Your task to perform on an android device: set default search engine in the chrome app Image 0: 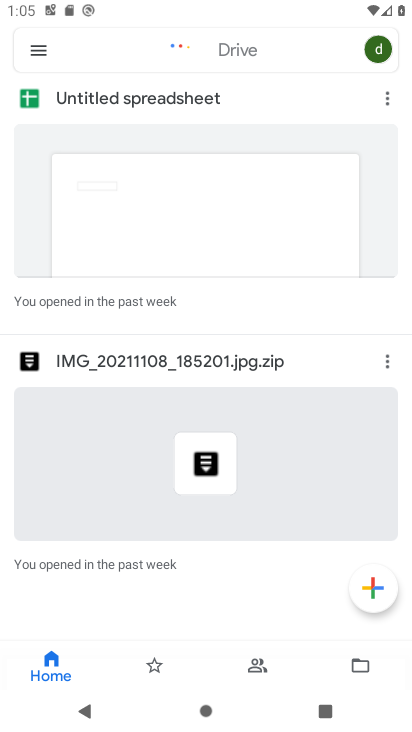
Step 0: press home button
Your task to perform on an android device: set default search engine in the chrome app Image 1: 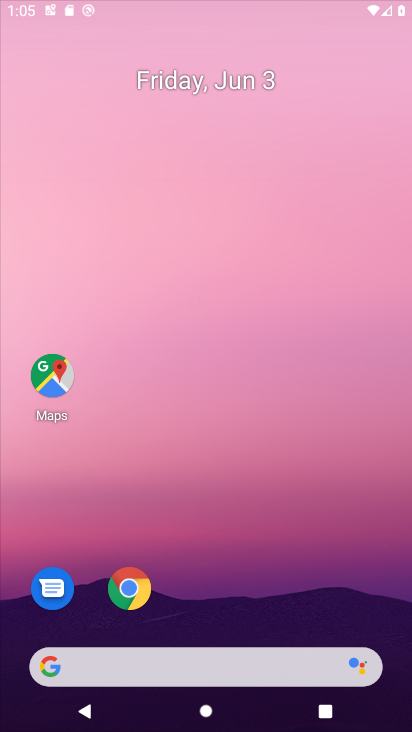
Step 1: drag from (212, 516) to (212, 470)
Your task to perform on an android device: set default search engine in the chrome app Image 2: 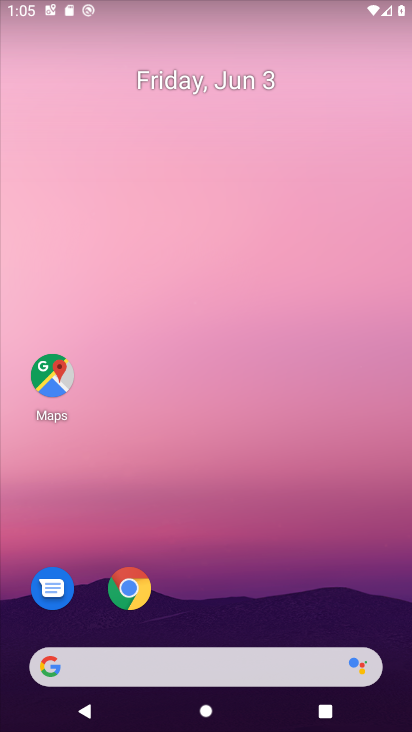
Step 2: drag from (308, 168) to (321, 130)
Your task to perform on an android device: set default search engine in the chrome app Image 3: 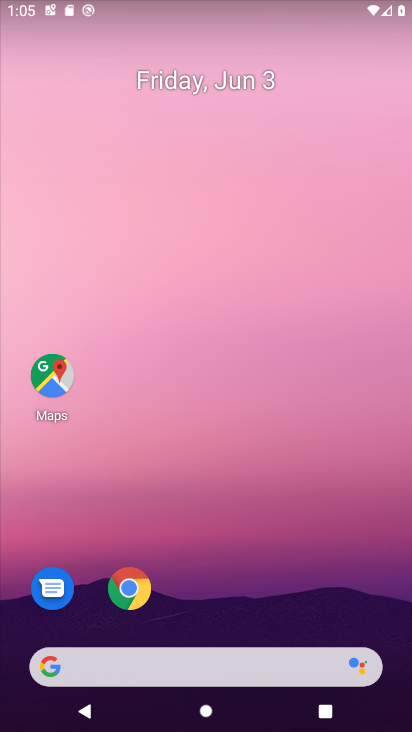
Step 3: click (139, 581)
Your task to perform on an android device: set default search engine in the chrome app Image 4: 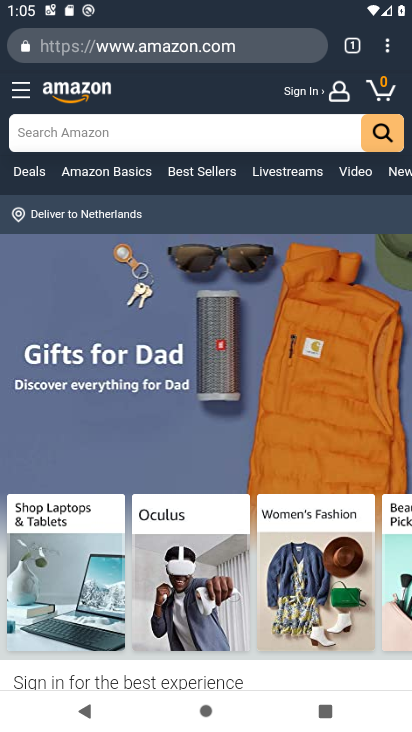
Step 4: click (389, 49)
Your task to perform on an android device: set default search engine in the chrome app Image 5: 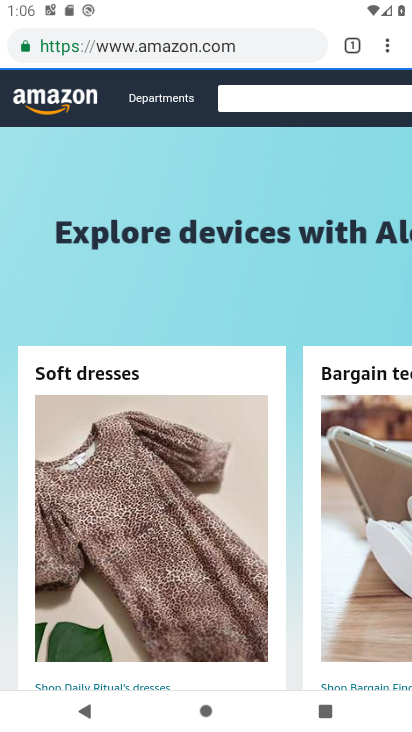
Step 5: click (393, 49)
Your task to perform on an android device: set default search engine in the chrome app Image 6: 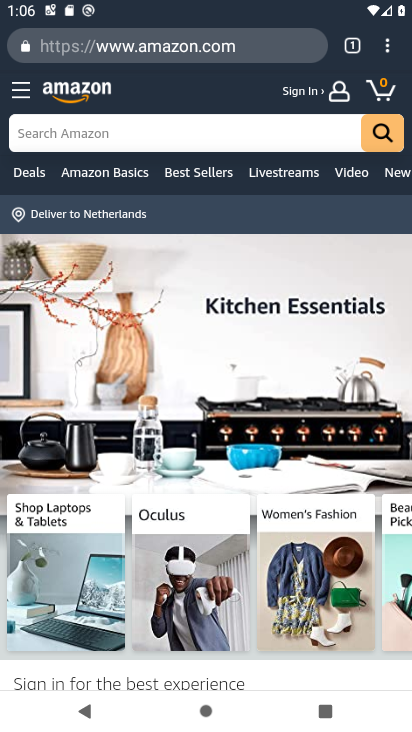
Step 6: click (389, 48)
Your task to perform on an android device: set default search engine in the chrome app Image 7: 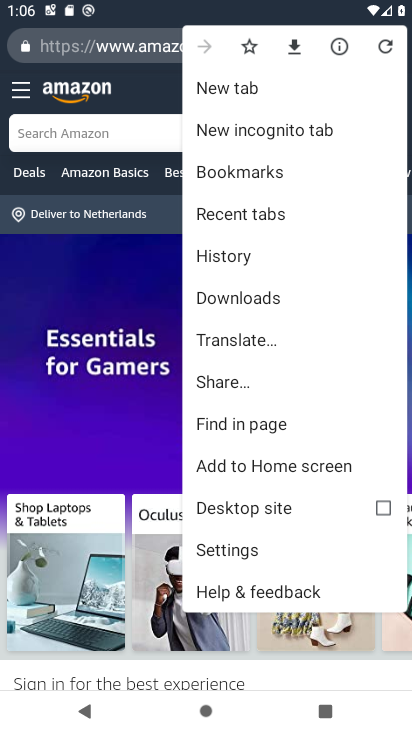
Step 7: click (244, 552)
Your task to perform on an android device: set default search engine in the chrome app Image 8: 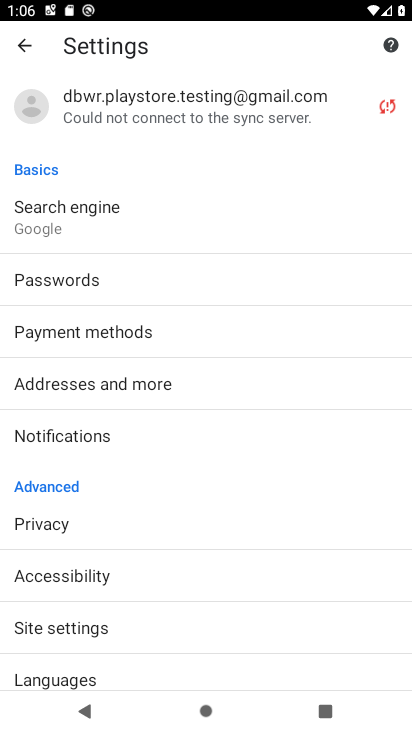
Step 8: click (137, 222)
Your task to perform on an android device: set default search engine in the chrome app Image 9: 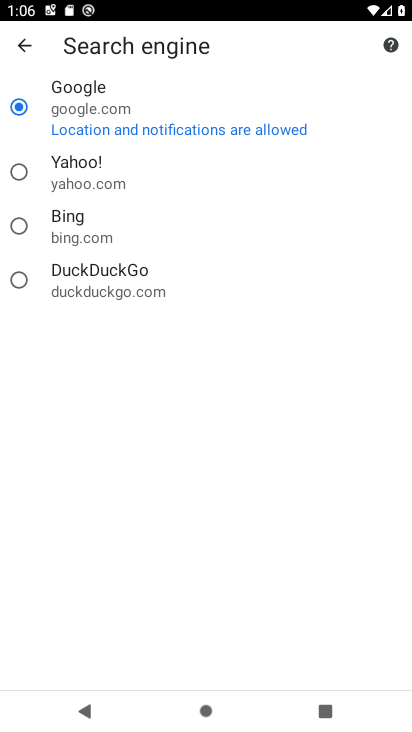
Step 9: task complete